Your task to perform on an android device: Go to CNN.com Image 0: 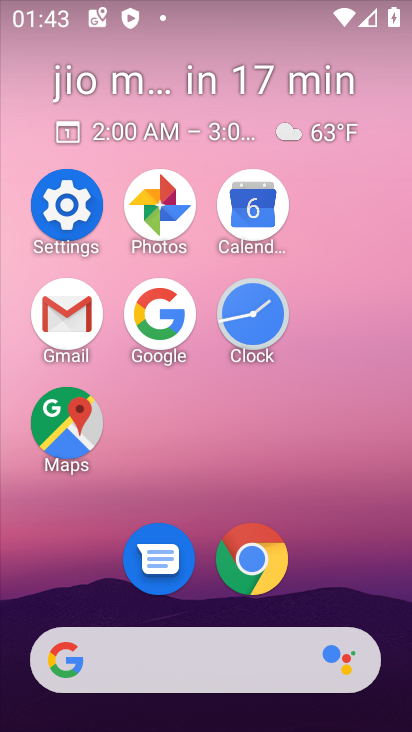
Step 0: click (177, 321)
Your task to perform on an android device: Go to CNN.com Image 1: 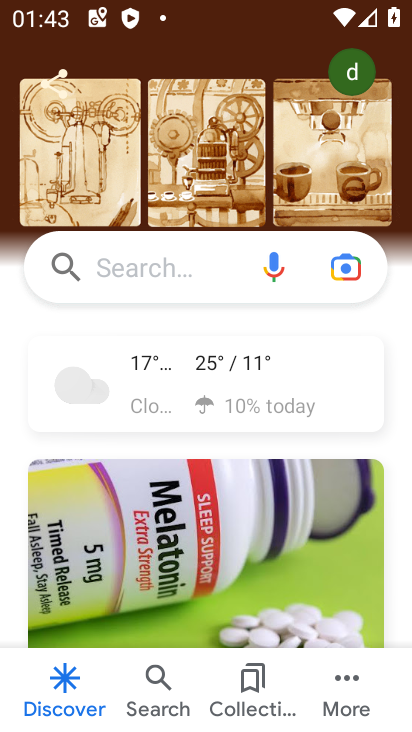
Step 1: click (95, 259)
Your task to perform on an android device: Go to CNN.com Image 2: 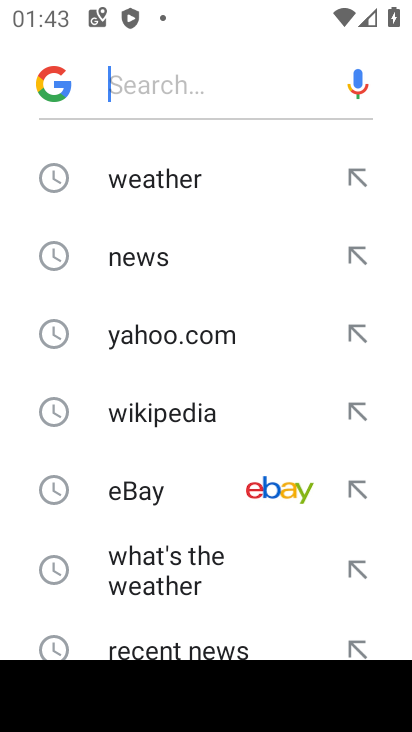
Step 2: drag from (168, 484) to (184, 221)
Your task to perform on an android device: Go to CNN.com Image 3: 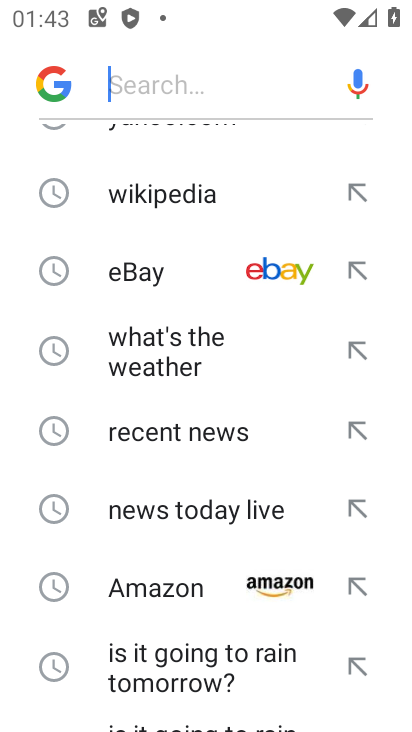
Step 3: drag from (179, 576) to (205, 254)
Your task to perform on an android device: Go to CNN.com Image 4: 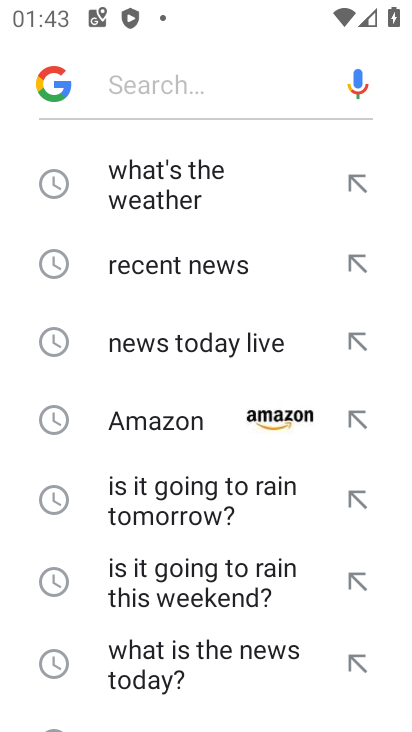
Step 4: drag from (154, 554) to (191, 260)
Your task to perform on an android device: Go to CNN.com Image 5: 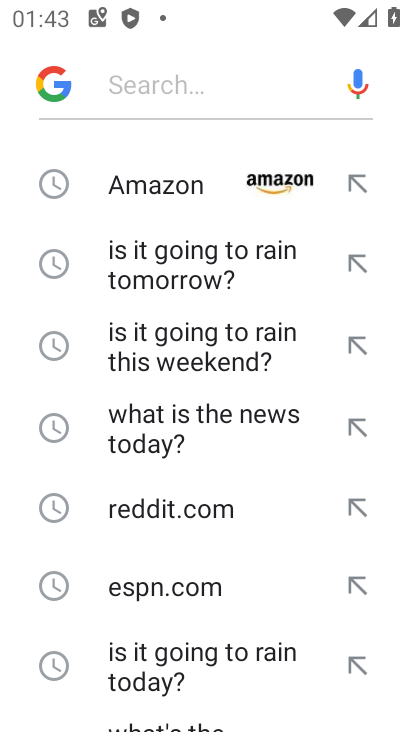
Step 5: drag from (234, 590) to (253, 286)
Your task to perform on an android device: Go to CNN.com Image 6: 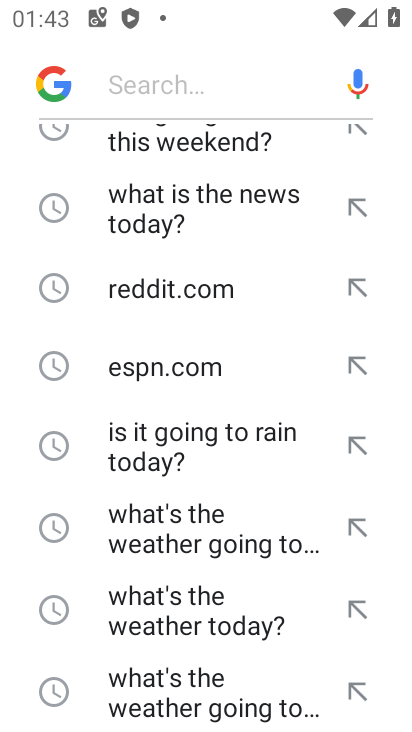
Step 6: drag from (236, 561) to (256, 266)
Your task to perform on an android device: Go to CNN.com Image 7: 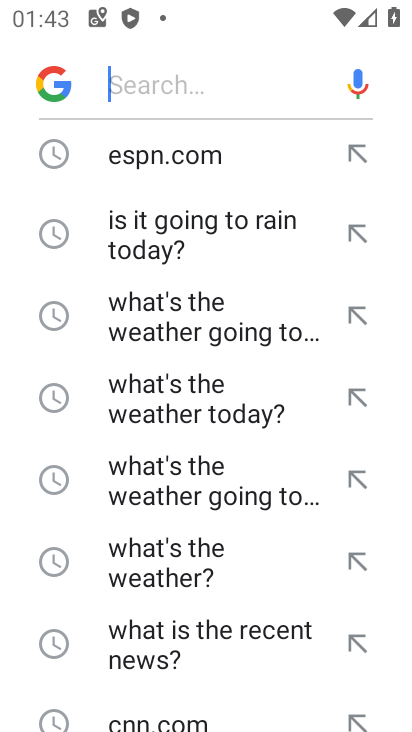
Step 7: drag from (223, 599) to (274, 316)
Your task to perform on an android device: Go to CNN.com Image 8: 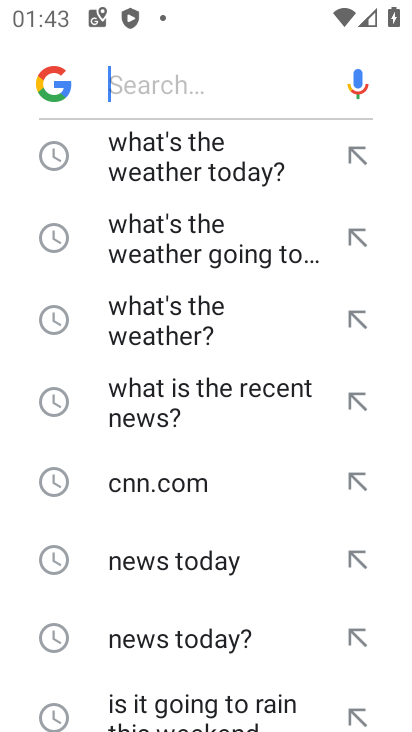
Step 8: click (182, 484)
Your task to perform on an android device: Go to CNN.com Image 9: 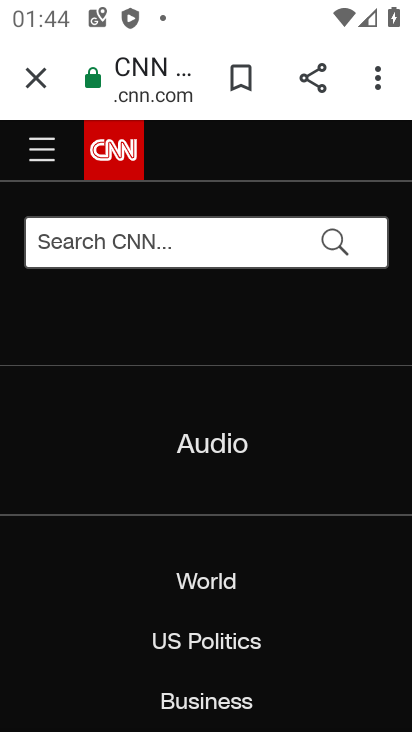
Step 9: task complete